Your task to perform on an android device: Go to display settings Image 0: 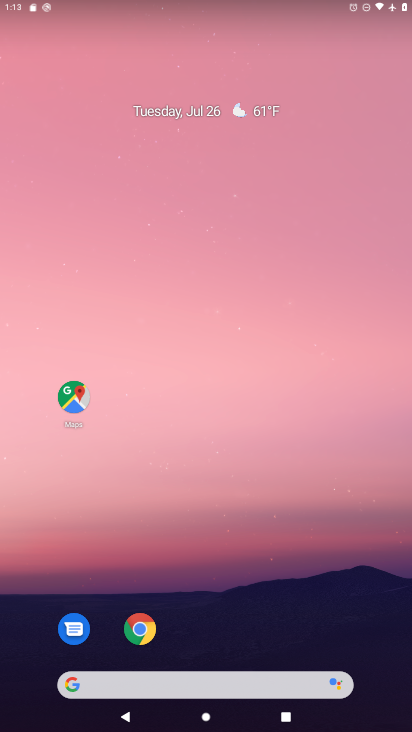
Step 0: click (226, 632)
Your task to perform on an android device: Go to display settings Image 1: 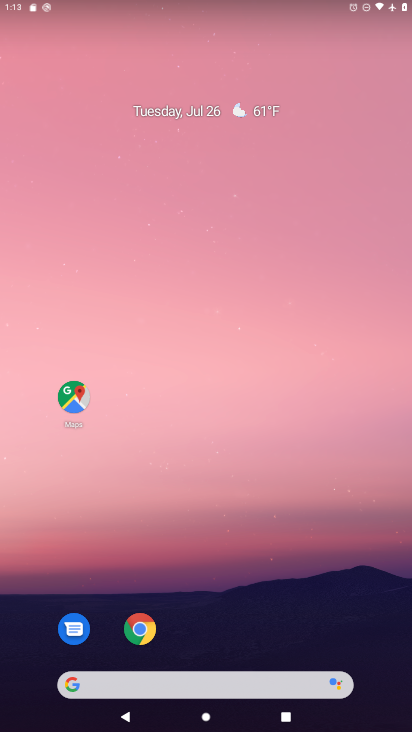
Step 1: drag from (223, 652) to (166, 240)
Your task to perform on an android device: Go to display settings Image 2: 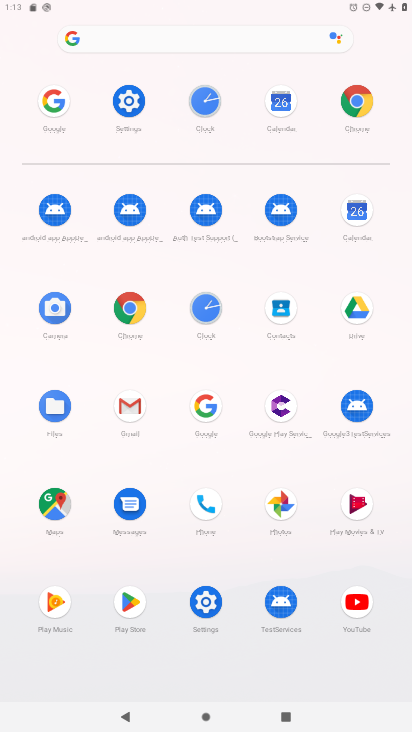
Step 2: click (214, 620)
Your task to perform on an android device: Go to display settings Image 3: 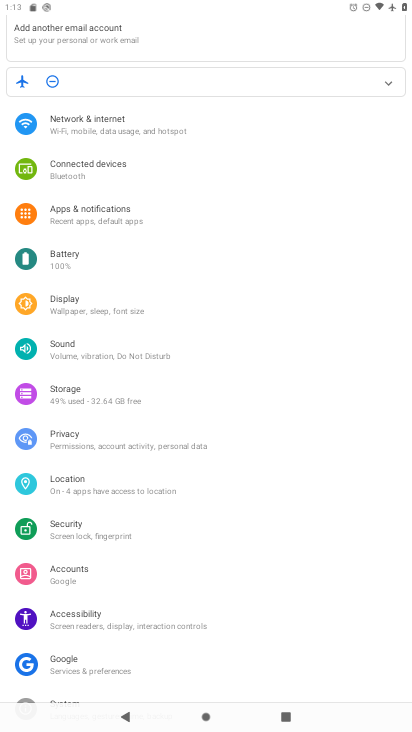
Step 3: click (76, 302)
Your task to perform on an android device: Go to display settings Image 4: 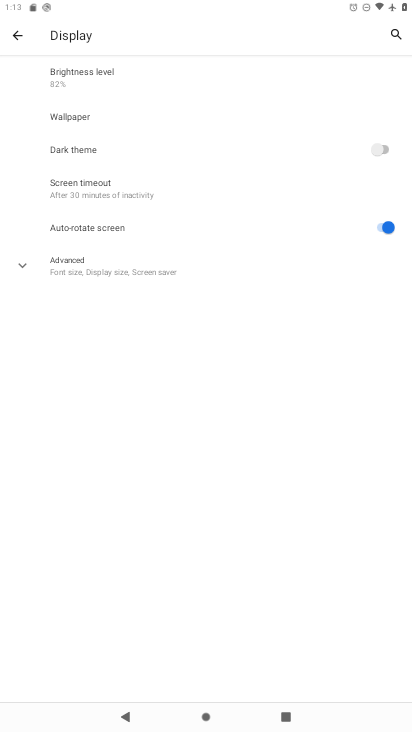
Step 4: task complete